Your task to perform on an android device: turn on sleep mode Image 0: 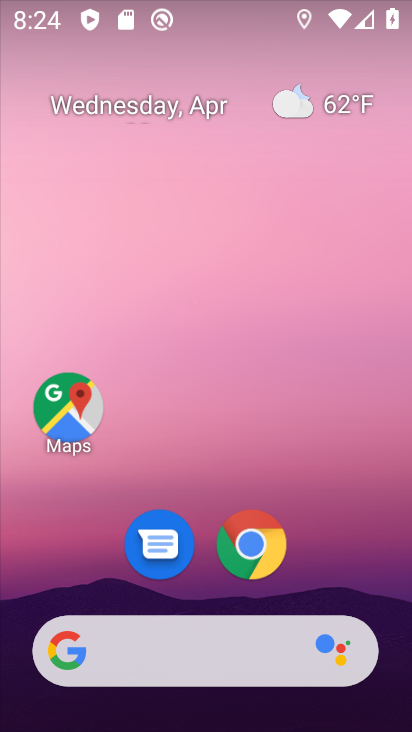
Step 0: drag from (308, 518) to (76, 90)
Your task to perform on an android device: turn on sleep mode Image 1: 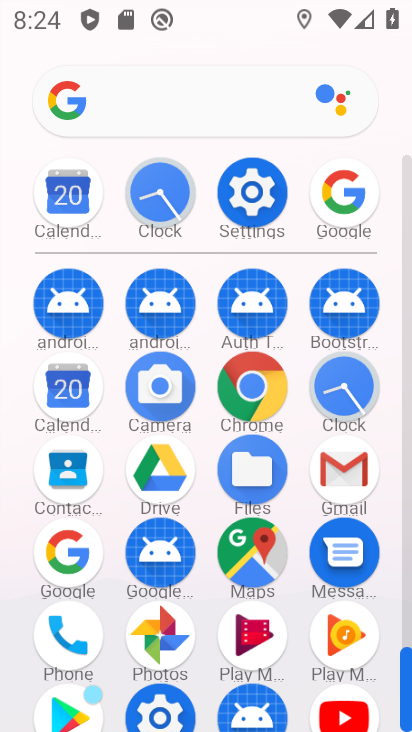
Step 1: click (276, 203)
Your task to perform on an android device: turn on sleep mode Image 2: 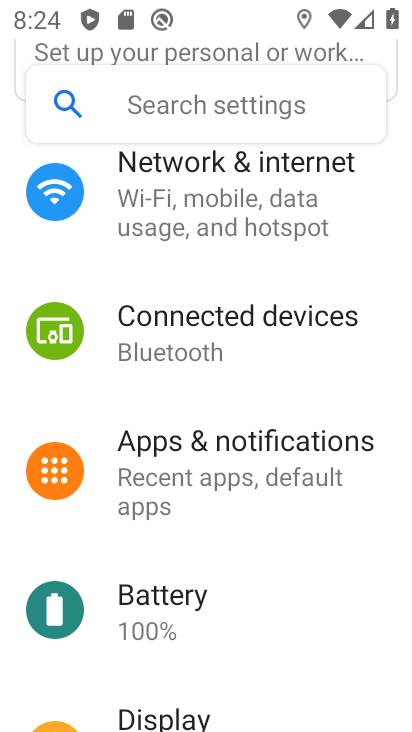
Step 2: drag from (245, 632) to (206, 204)
Your task to perform on an android device: turn on sleep mode Image 3: 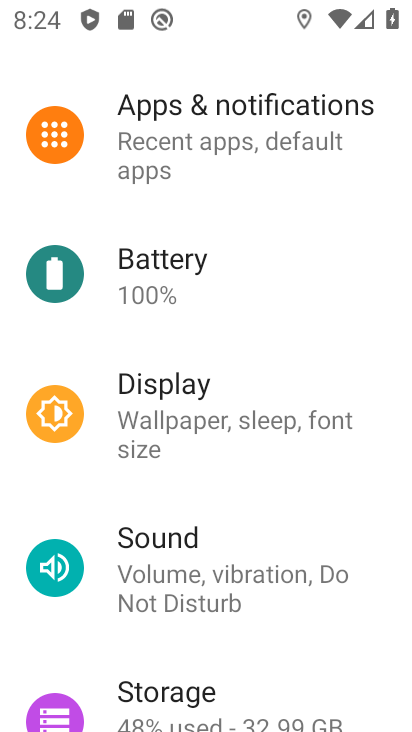
Step 3: click (206, 410)
Your task to perform on an android device: turn on sleep mode Image 4: 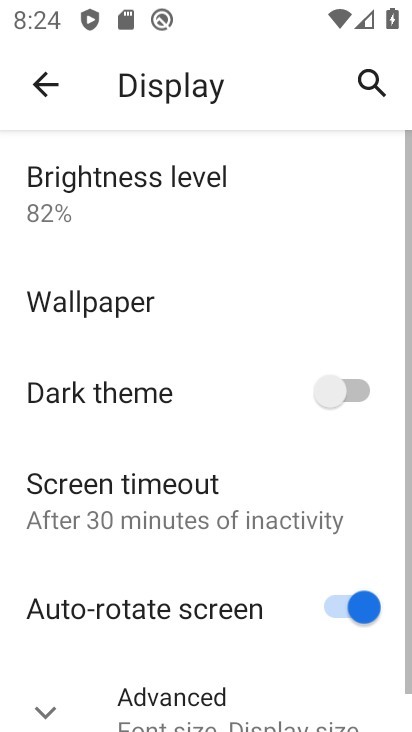
Step 4: drag from (199, 639) to (165, 276)
Your task to perform on an android device: turn on sleep mode Image 5: 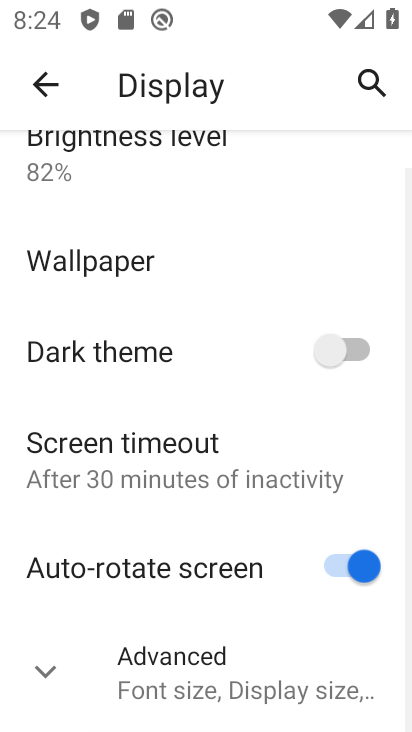
Step 5: click (223, 683)
Your task to perform on an android device: turn on sleep mode Image 6: 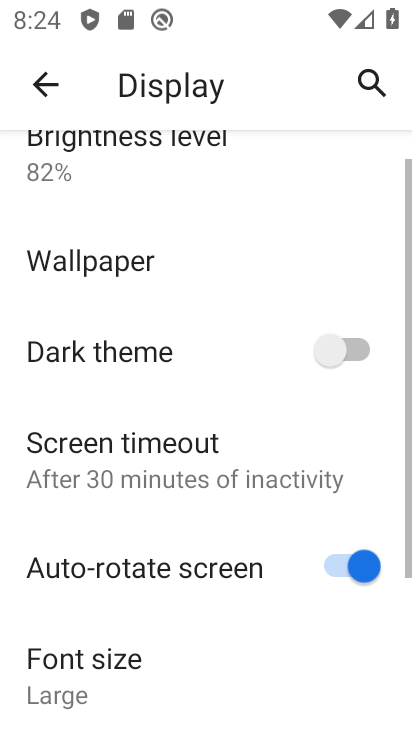
Step 6: task complete